Your task to perform on an android device: toggle data saver in the chrome app Image 0: 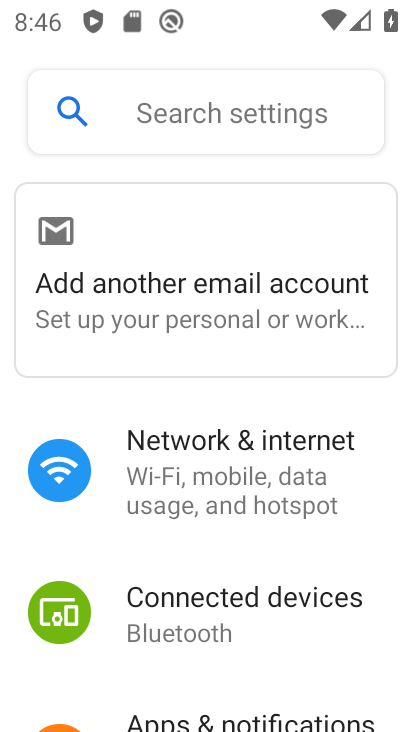
Step 0: press home button
Your task to perform on an android device: toggle data saver in the chrome app Image 1: 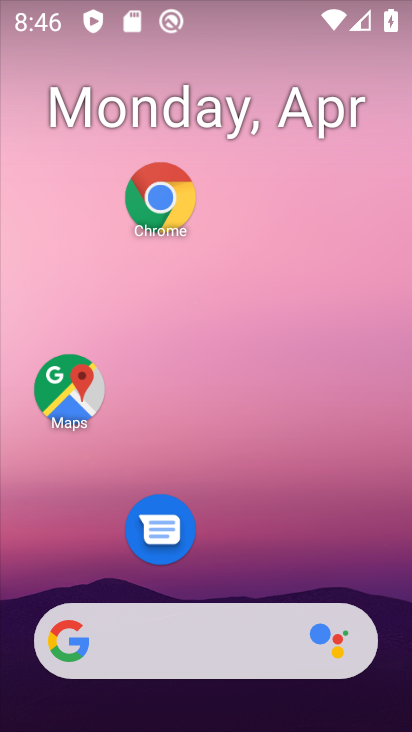
Step 1: drag from (228, 517) to (270, 85)
Your task to perform on an android device: toggle data saver in the chrome app Image 2: 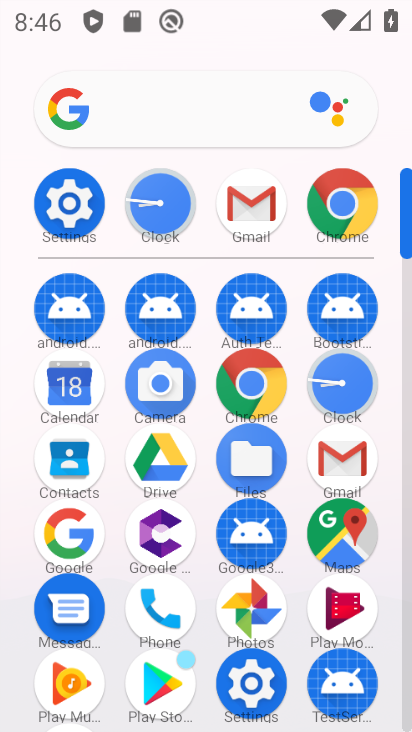
Step 2: click (338, 196)
Your task to perform on an android device: toggle data saver in the chrome app Image 3: 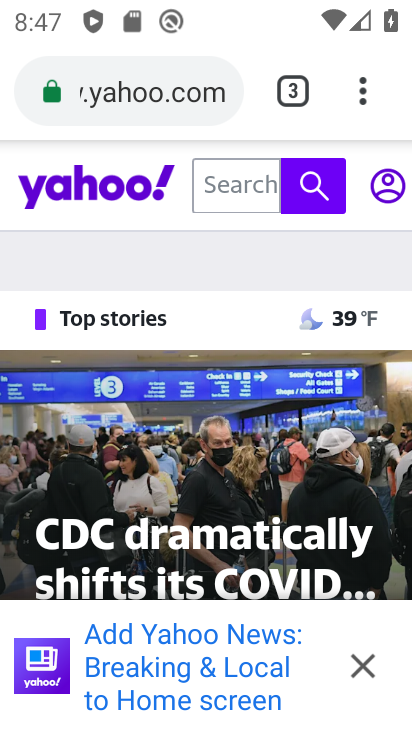
Step 3: click (358, 87)
Your task to perform on an android device: toggle data saver in the chrome app Image 4: 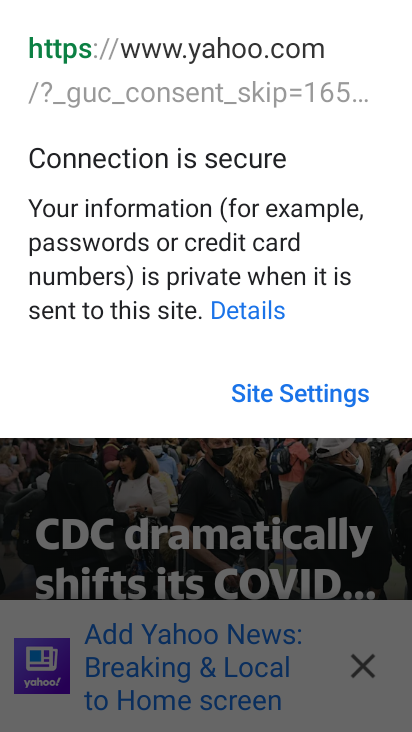
Step 4: click (150, 555)
Your task to perform on an android device: toggle data saver in the chrome app Image 5: 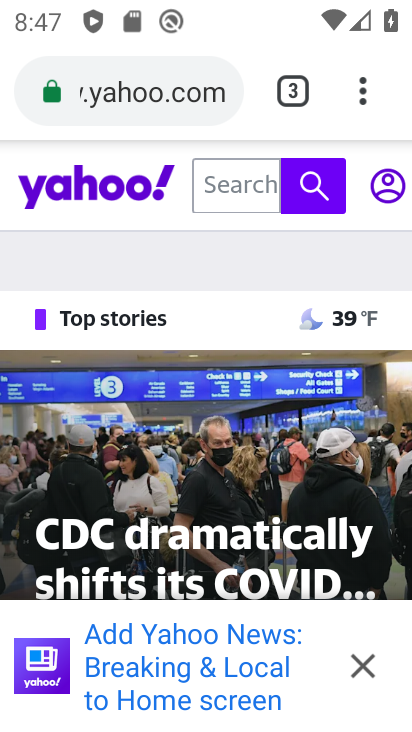
Step 5: drag from (362, 87) to (100, 541)
Your task to perform on an android device: toggle data saver in the chrome app Image 6: 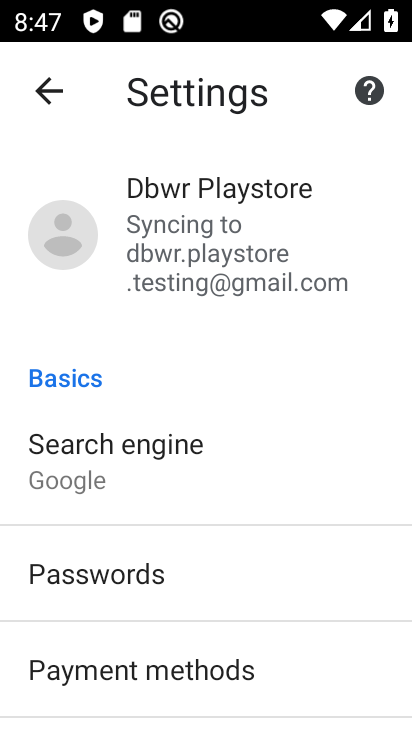
Step 6: drag from (119, 665) to (213, 185)
Your task to perform on an android device: toggle data saver in the chrome app Image 7: 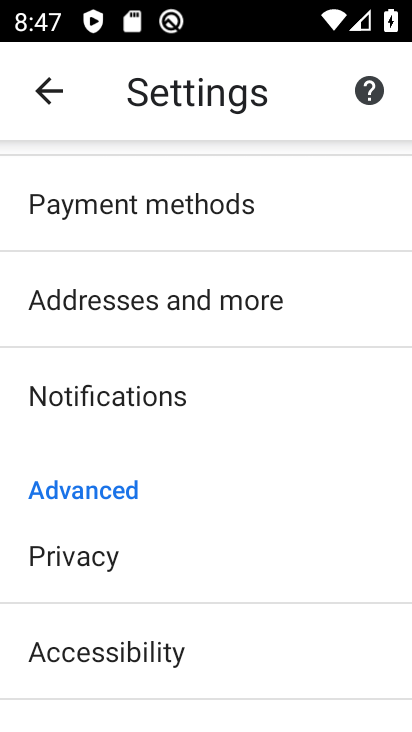
Step 7: drag from (137, 634) to (246, 149)
Your task to perform on an android device: toggle data saver in the chrome app Image 8: 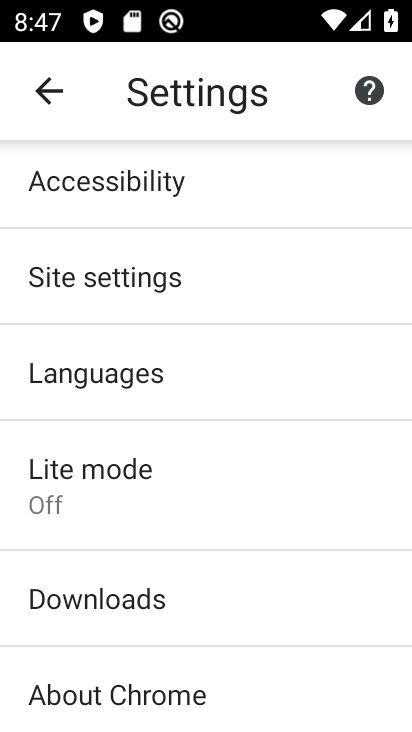
Step 8: click (115, 489)
Your task to perform on an android device: toggle data saver in the chrome app Image 9: 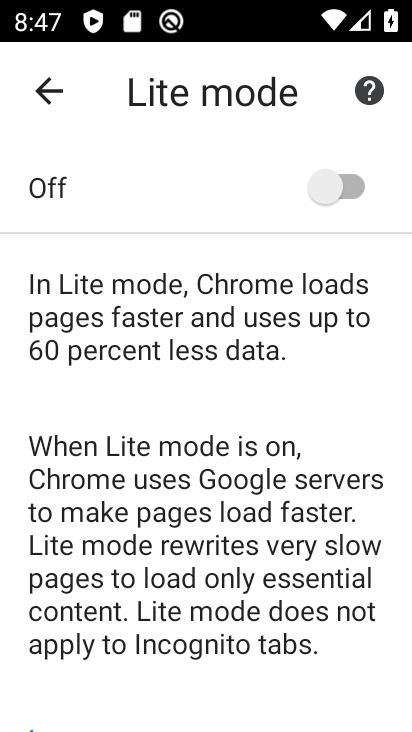
Step 9: click (321, 190)
Your task to perform on an android device: toggle data saver in the chrome app Image 10: 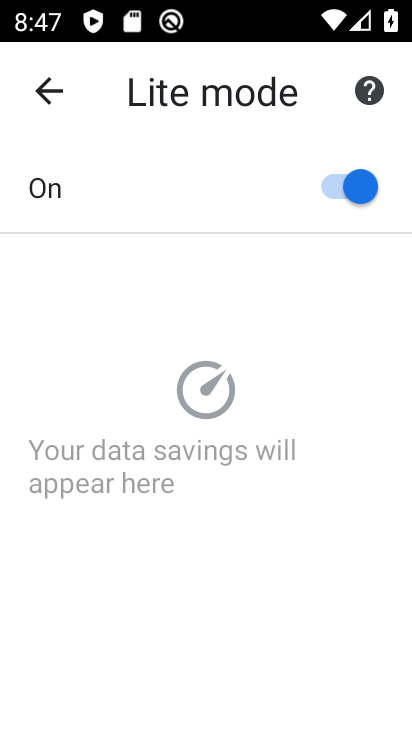
Step 10: task complete